Your task to perform on an android device: set the stopwatch Image 0: 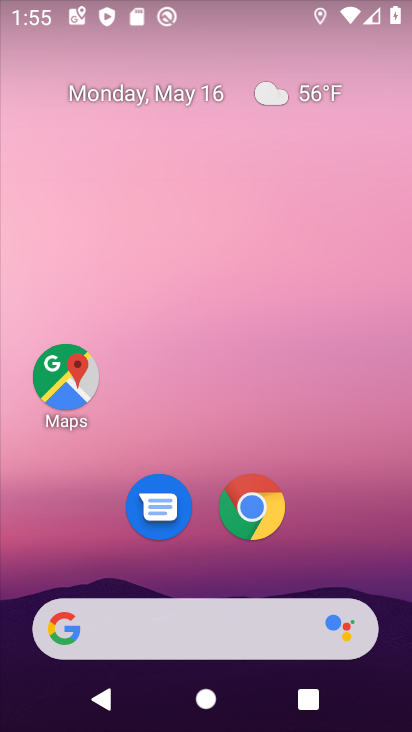
Step 0: drag from (196, 537) to (273, 132)
Your task to perform on an android device: set the stopwatch Image 1: 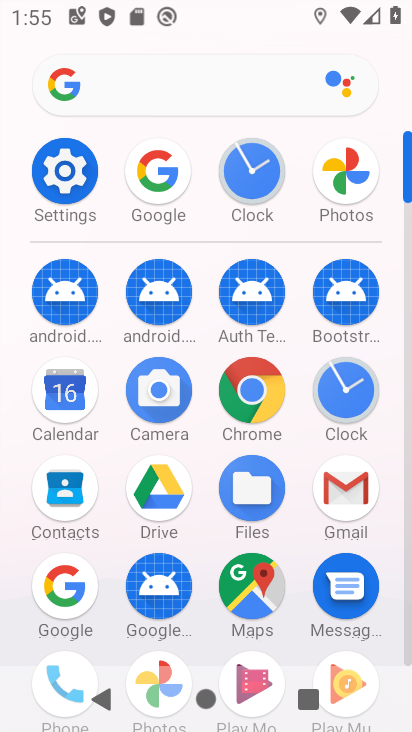
Step 1: click (261, 174)
Your task to perform on an android device: set the stopwatch Image 2: 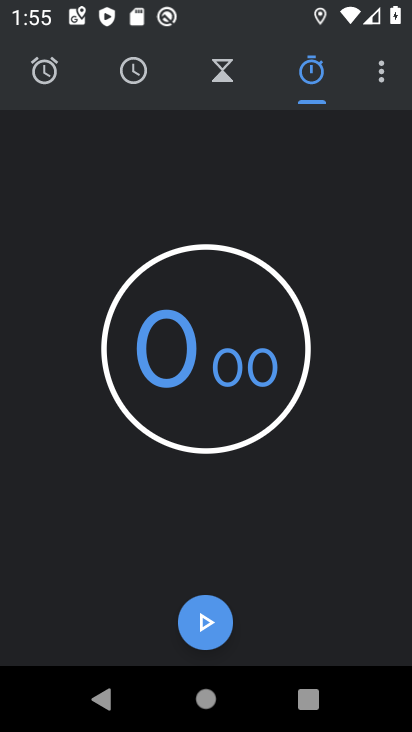
Step 2: click (205, 618)
Your task to perform on an android device: set the stopwatch Image 3: 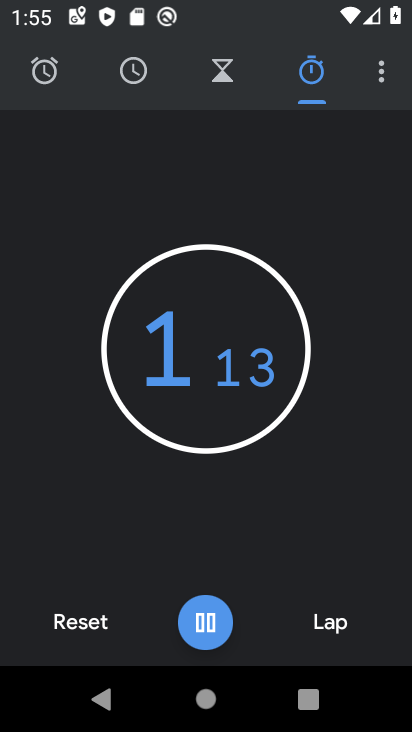
Step 3: click (205, 618)
Your task to perform on an android device: set the stopwatch Image 4: 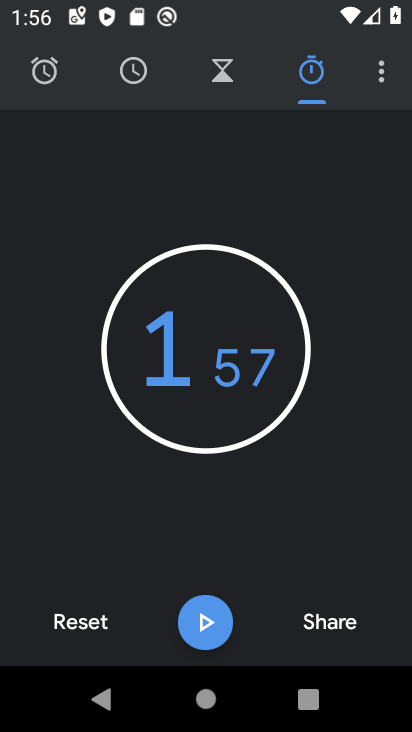
Step 4: task complete